Your task to perform on an android device: Open sound settings Image 0: 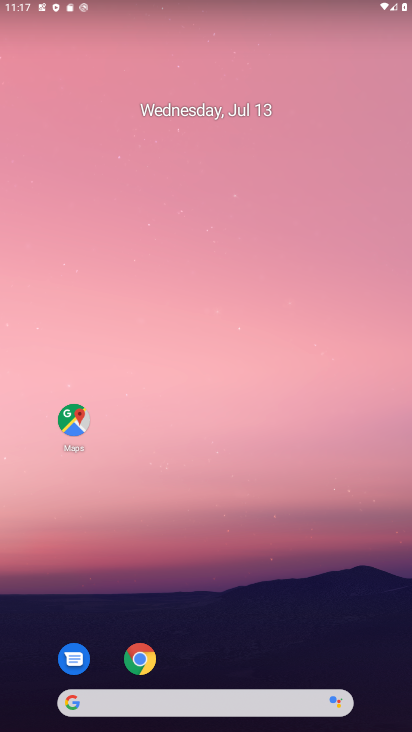
Step 0: drag from (300, 638) to (233, 103)
Your task to perform on an android device: Open sound settings Image 1: 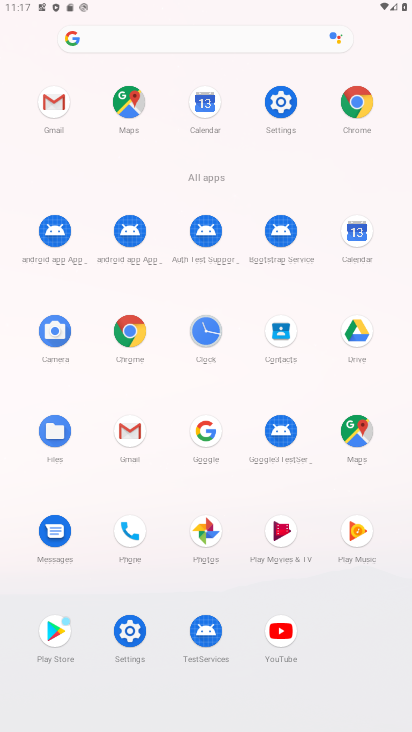
Step 1: click (277, 99)
Your task to perform on an android device: Open sound settings Image 2: 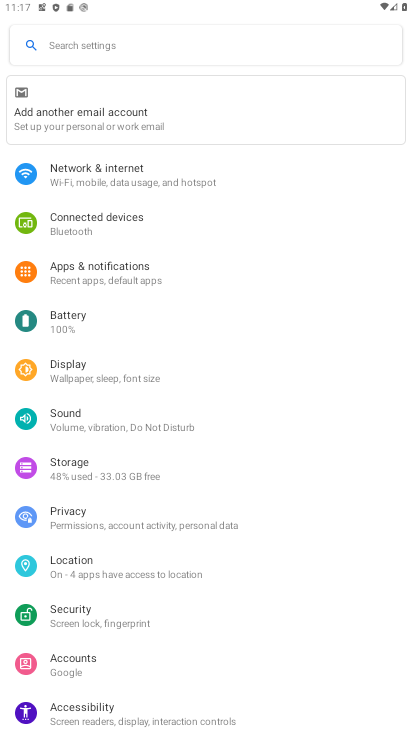
Step 2: click (126, 420)
Your task to perform on an android device: Open sound settings Image 3: 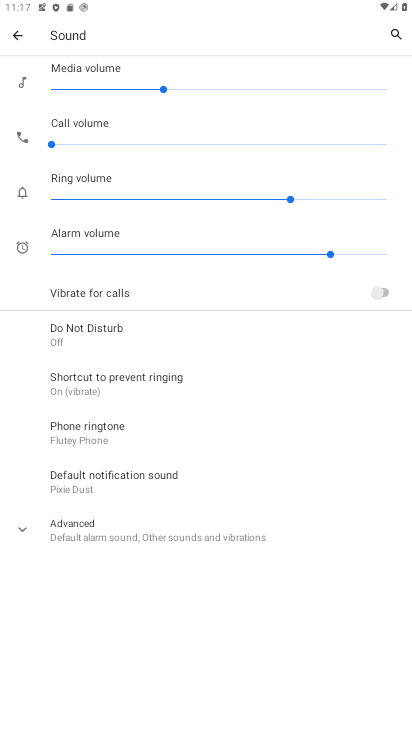
Step 3: task complete